Your task to perform on an android device: remove spam from my inbox in the gmail app Image 0: 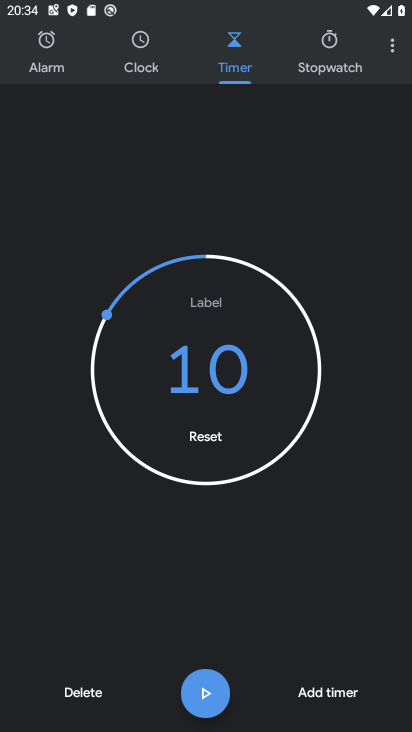
Step 0: press home button
Your task to perform on an android device: remove spam from my inbox in the gmail app Image 1: 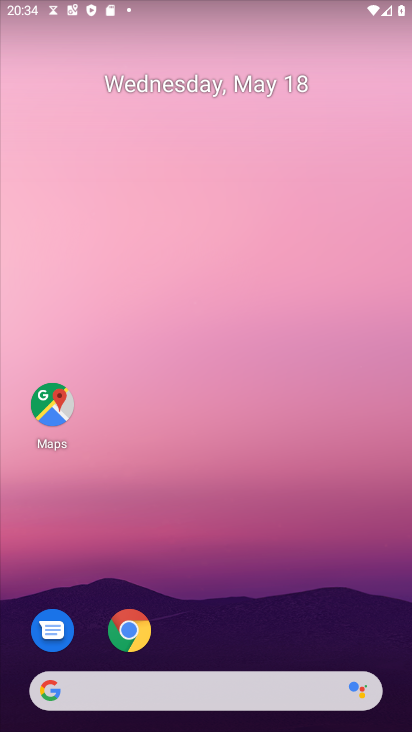
Step 1: drag from (140, 680) to (313, 172)
Your task to perform on an android device: remove spam from my inbox in the gmail app Image 2: 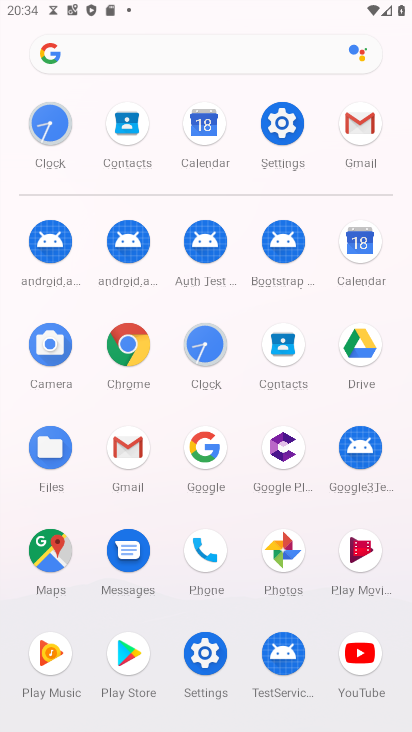
Step 2: click (359, 125)
Your task to perform on an android device: remove spam from my inbox in the gmail app Image 3: 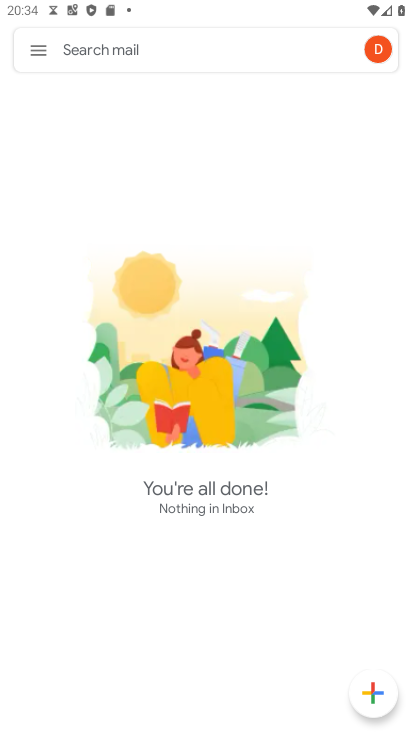
Step 3: click (37, 50)
Your task to perform on an android device: remove spam from my inbox in the gmail app Image 4: 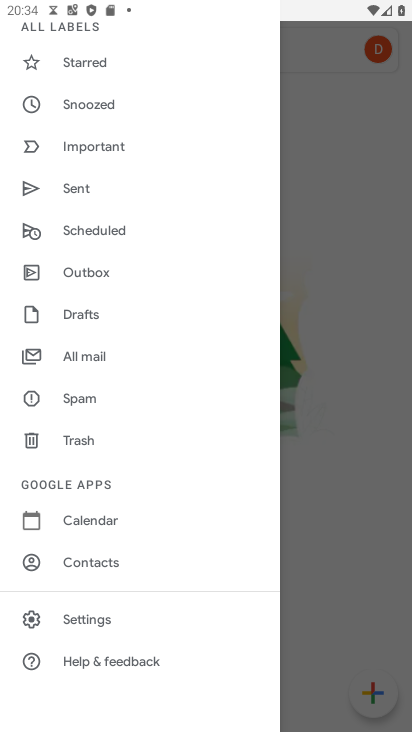
Step 4: click (88, 396)
Your task to perform on an android device: remove spam from my inbox in the gmail app Image 5: 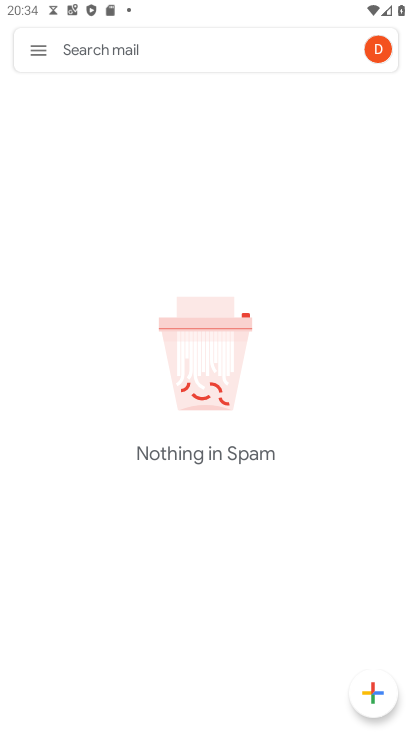
Step 5: task complete